Your task to perform on an android device: open app "DoorDash - Food Delivery" (install if not already installed) Image 0: 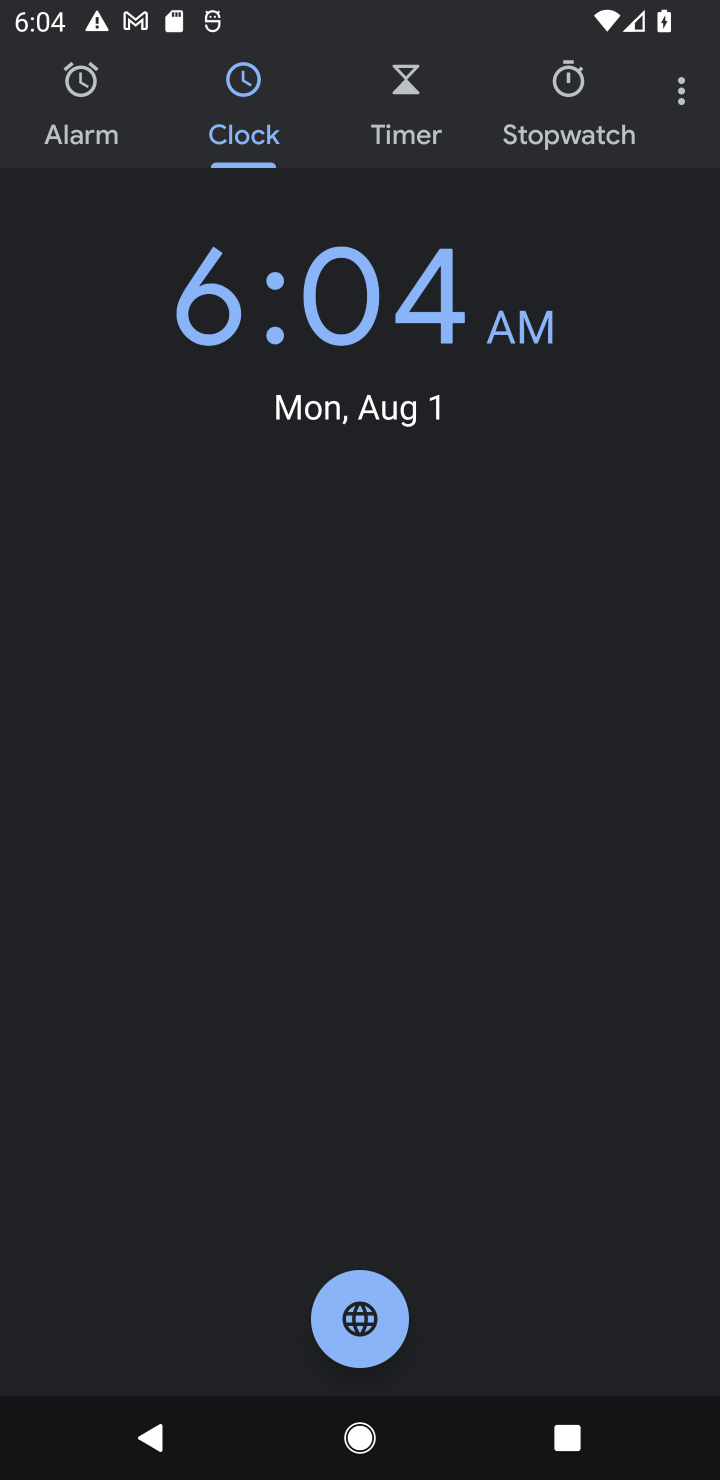
Step 0: press home button
Your task to perform on an android device: open app "DoorDash - Food Delivery" (install if not already installed) Image 1: 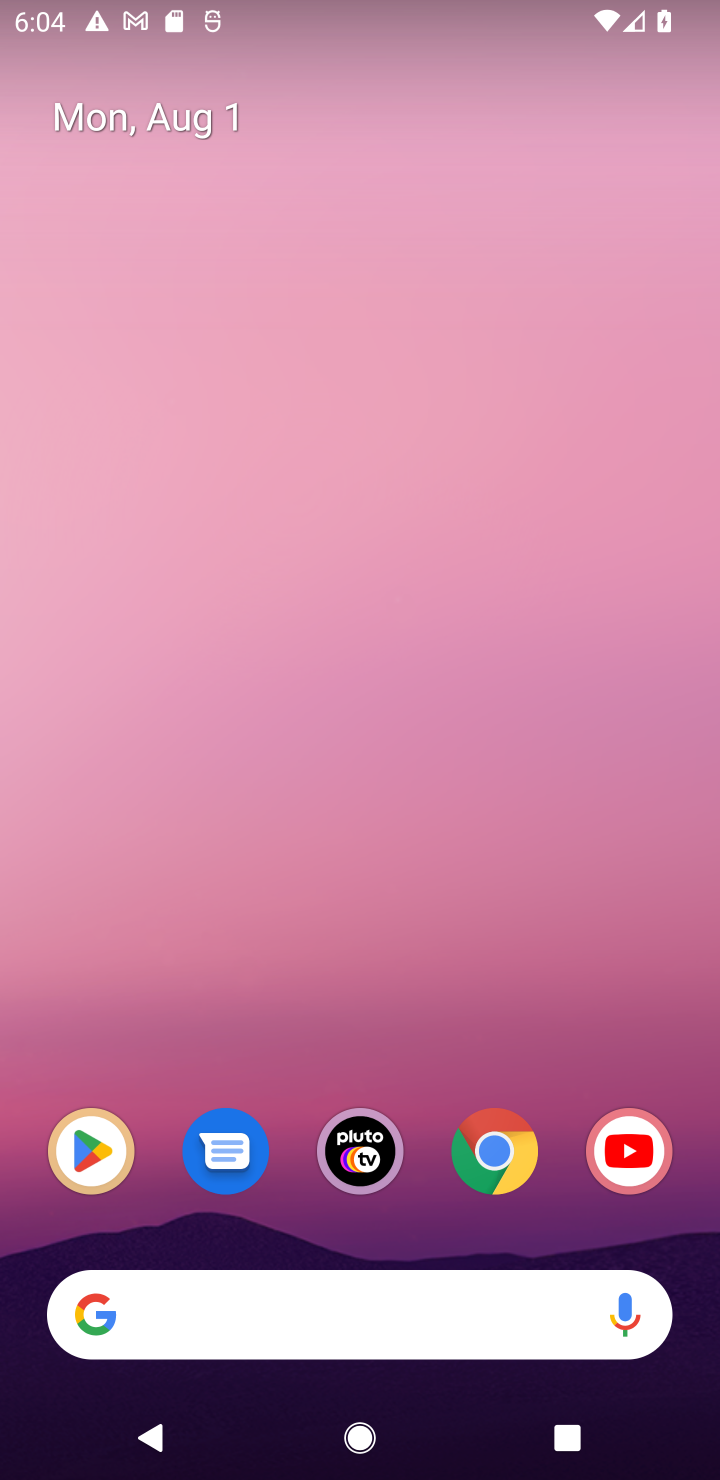
Step 1: drag from (400, 1294) to (550, 20)
Your task to perform on an android device: open app "DoorDash - Food Delivery" (install if not already installed) Image 2: 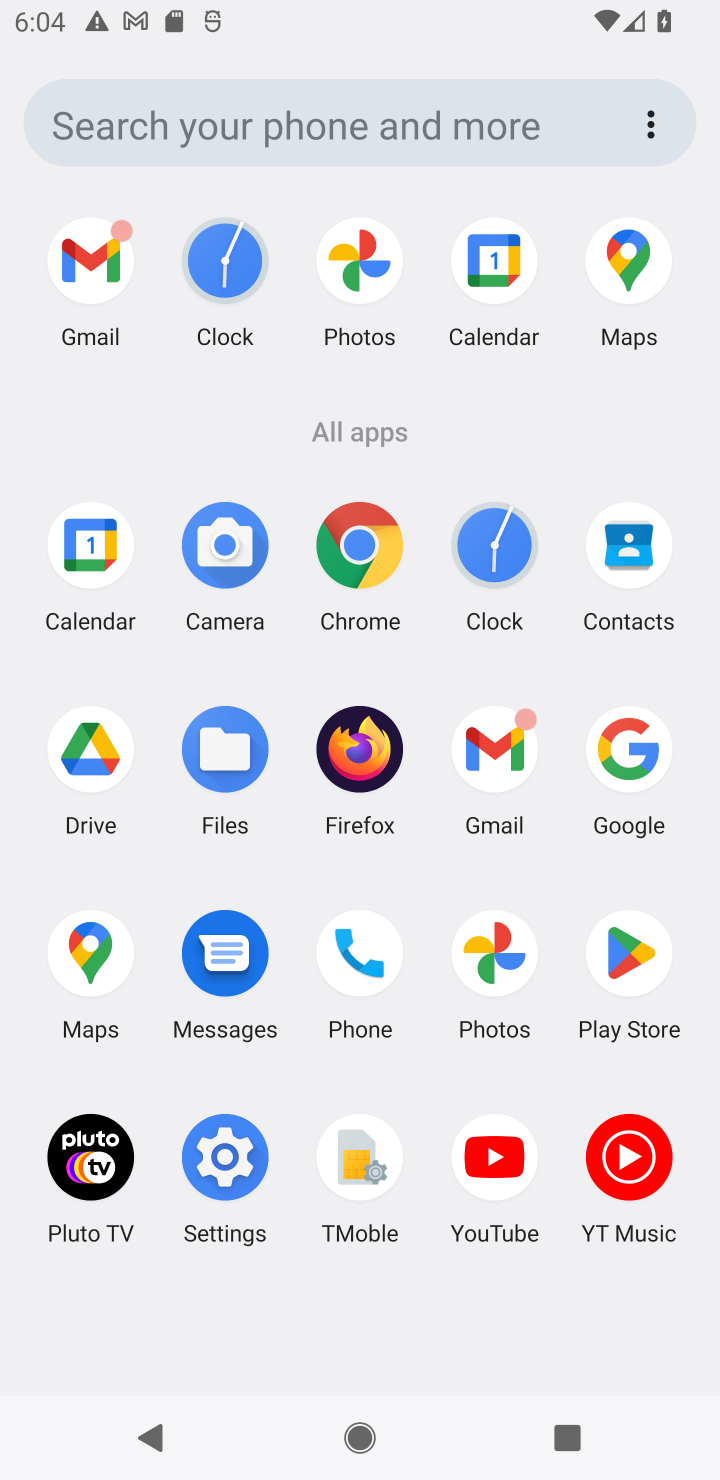
Step 2: click (631, 910)
Your task to perform on an android device: open app "DoorDash - Food Delivery" (install if not already installed) Image 3: 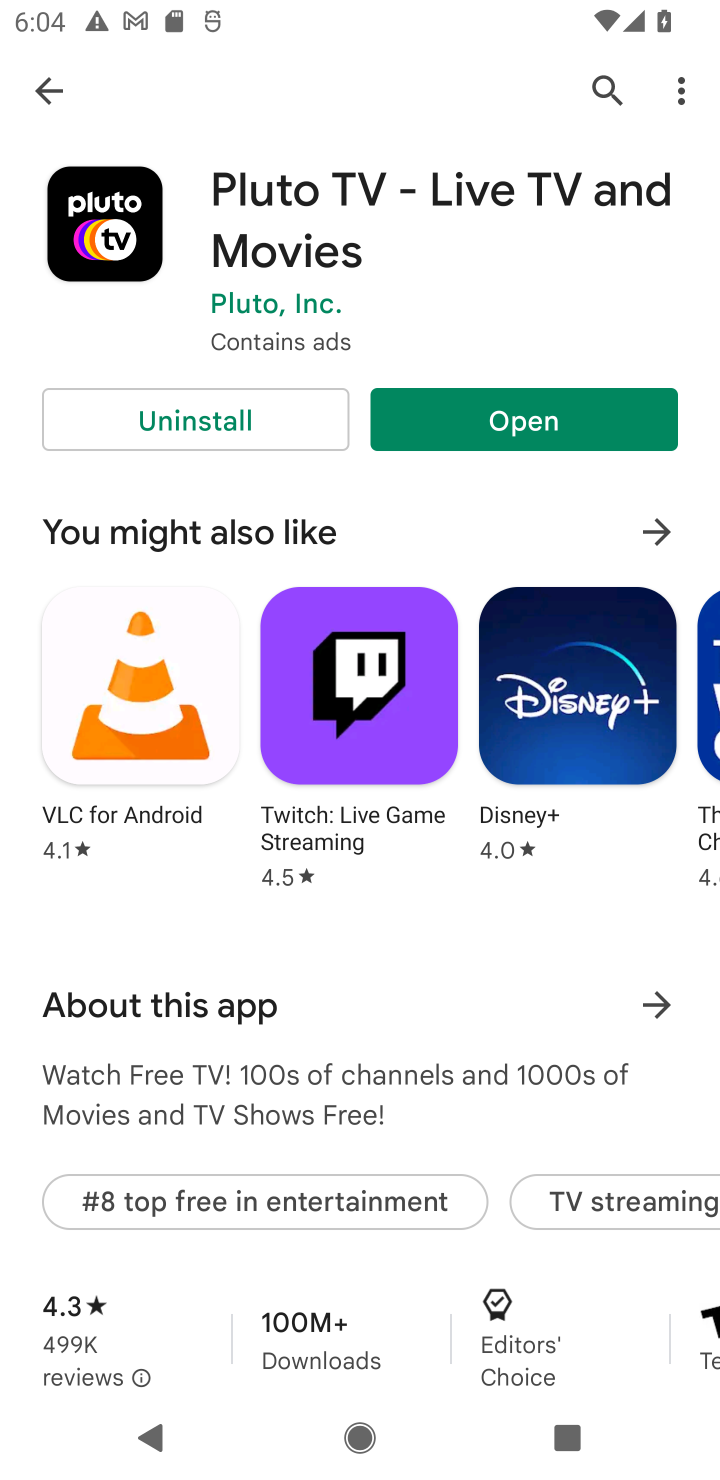
Step 3: click (606, 90)
Your task to perform on an android device: open app "DoorDash - Food Delivery" (install if not already installed) Image 4: 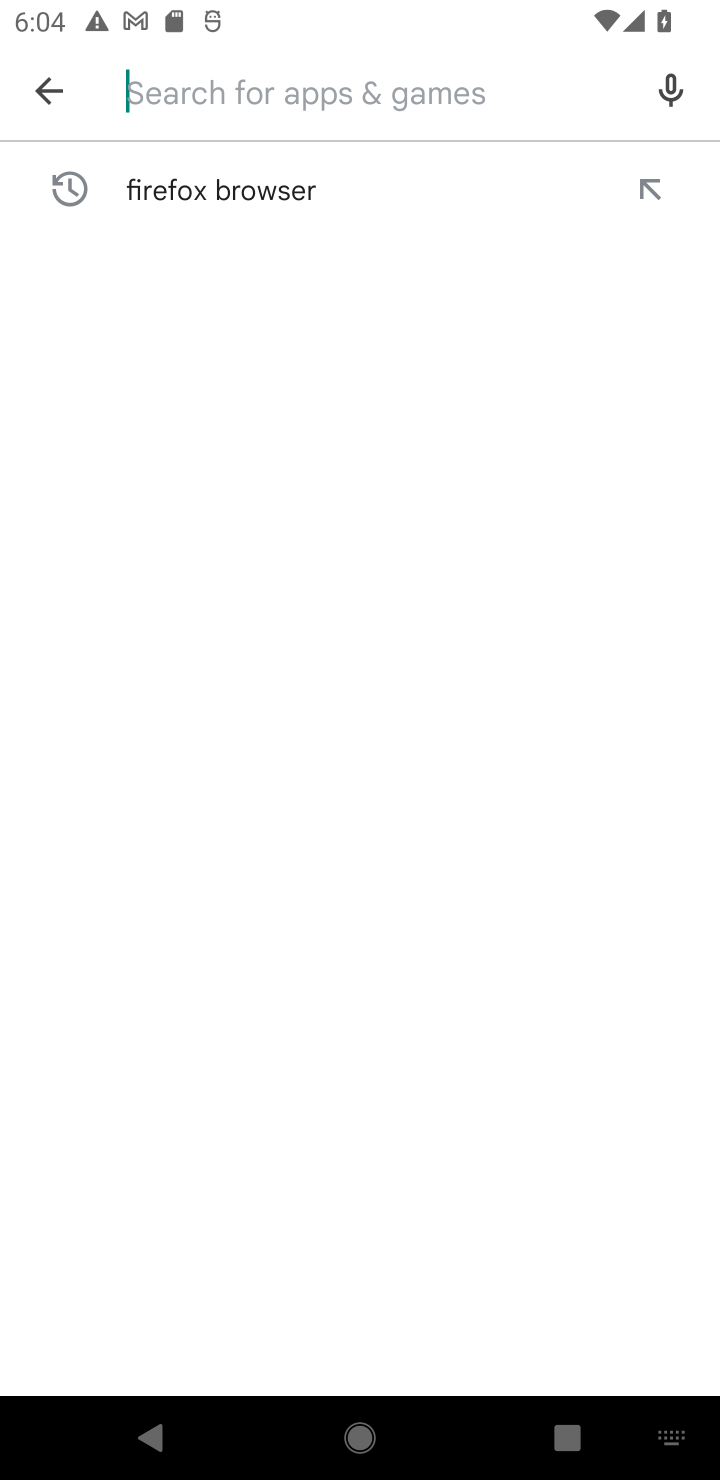
Step 4: type "doordash - food delivery"
Your task to perform on an android device: open app "DoorDash - Food Delivery" (install if not already installed) Image 5: 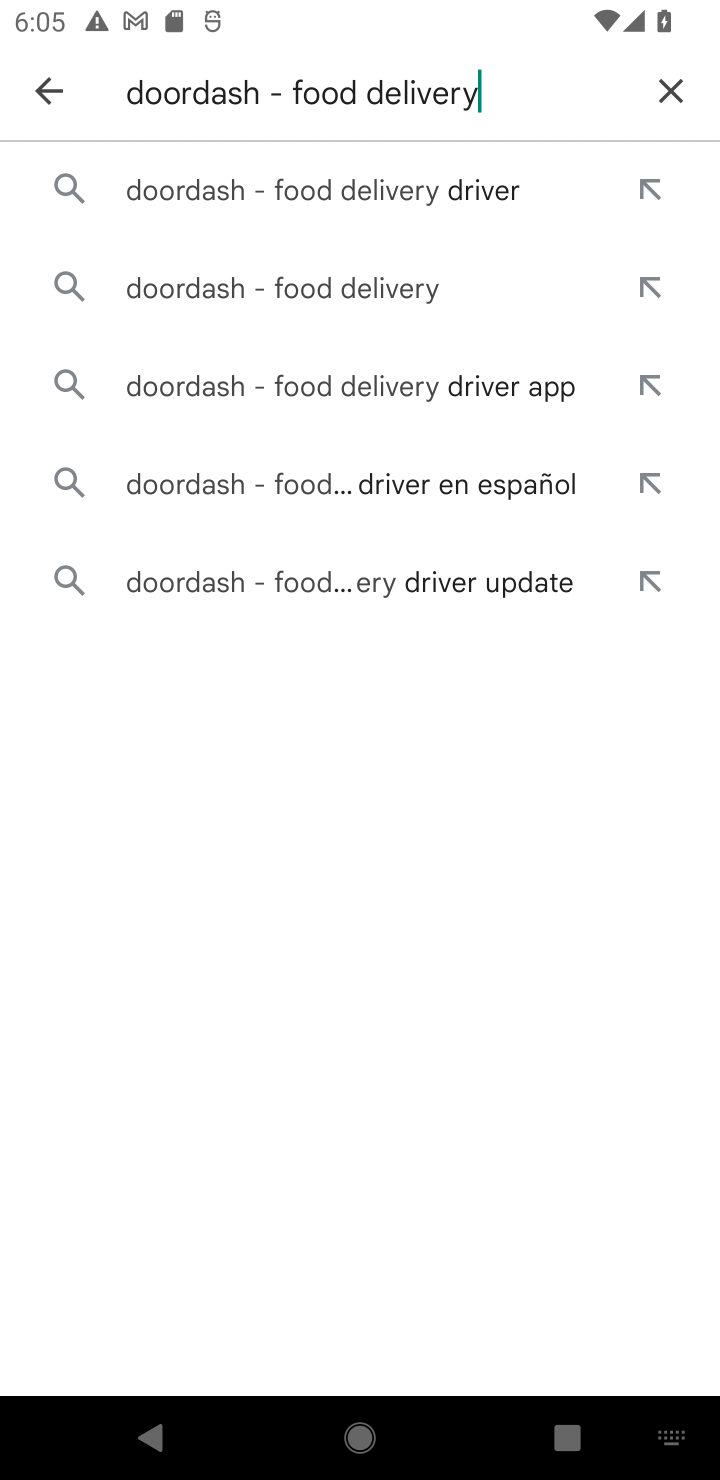
Step 5: click (433, 149)
Your task to perform on an android device: open app "DoorDash - Food Delivery" (install if not already installed) Image 6: 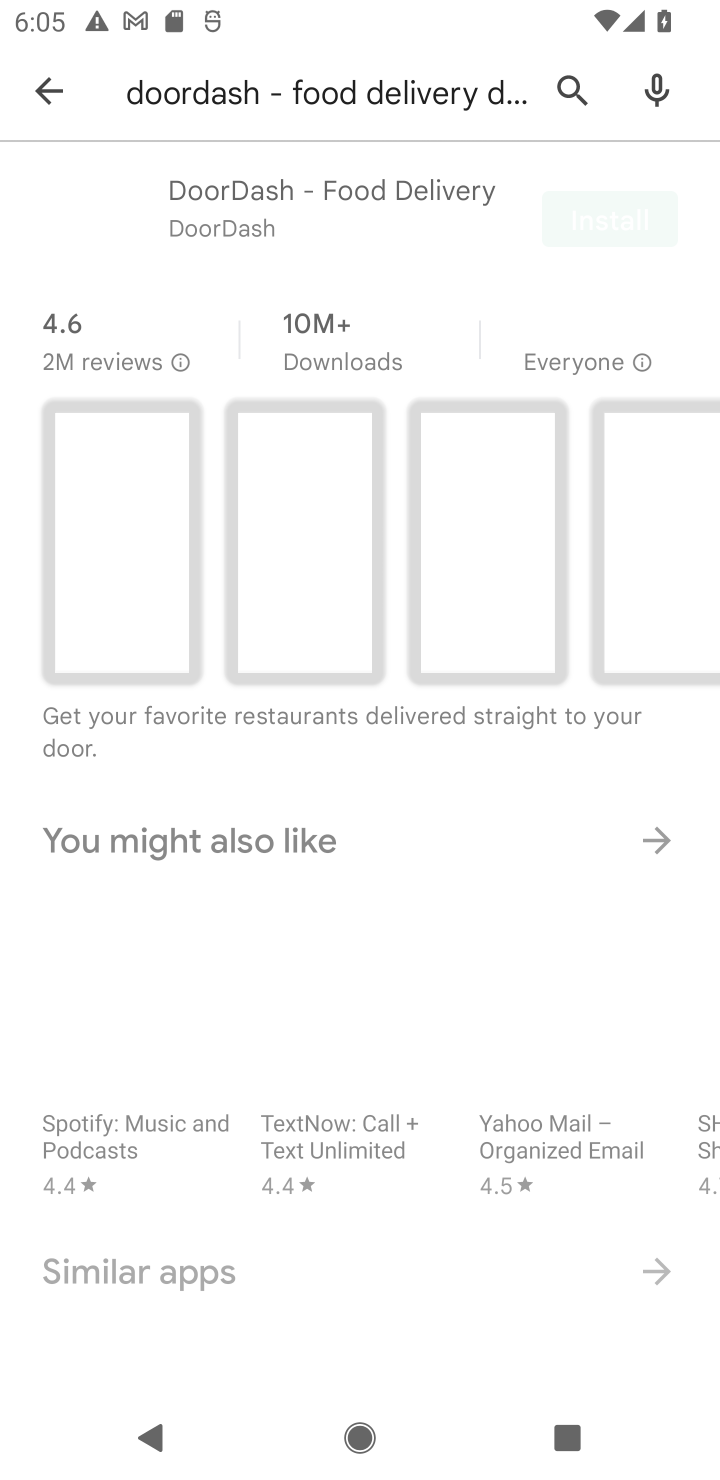
Step 6: click (395, 175)
Your task to perform on an android device: open app "DoorDash - Food Delivery" (install if not already installed) Image 7: 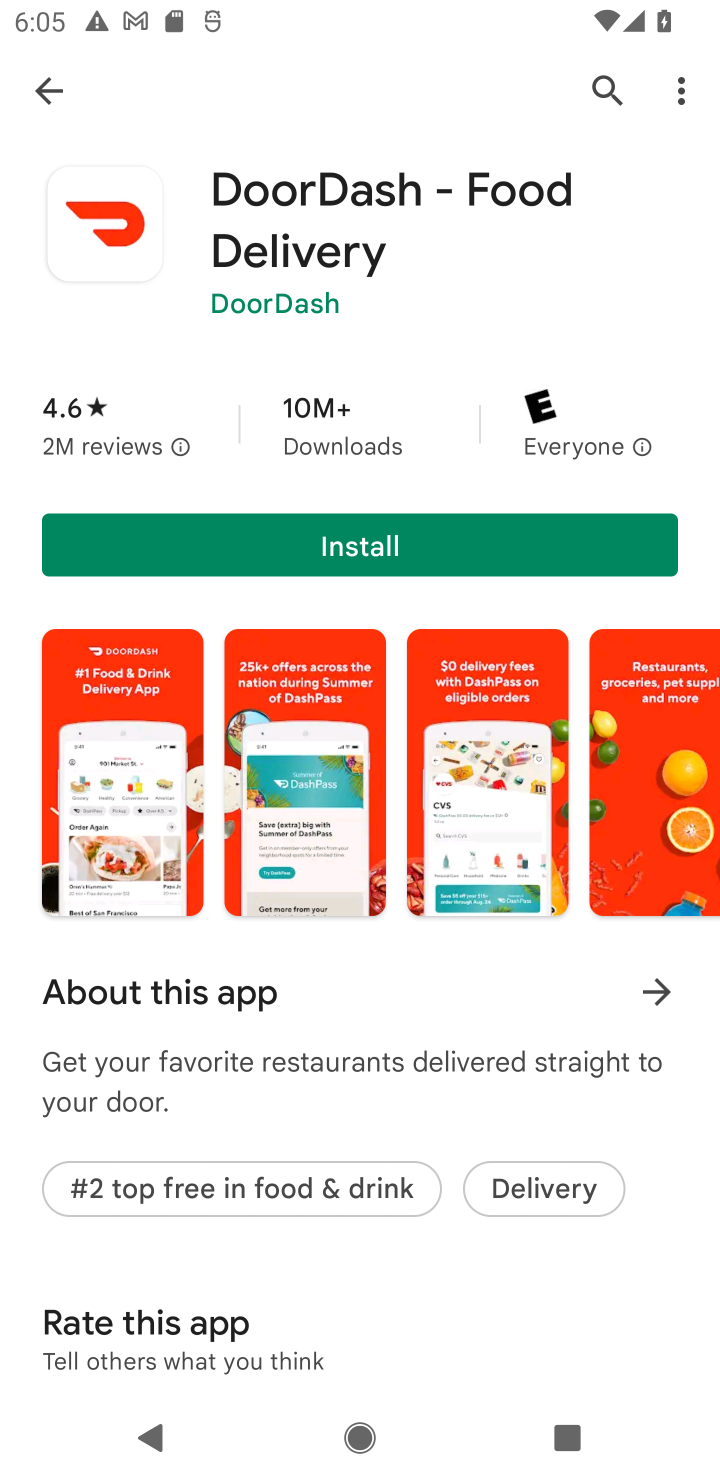
Step 7: click (469, 544)
Your task to perform on an android device: open app "DoorDash - Food Delivery" (install if not already installed) Image 8: 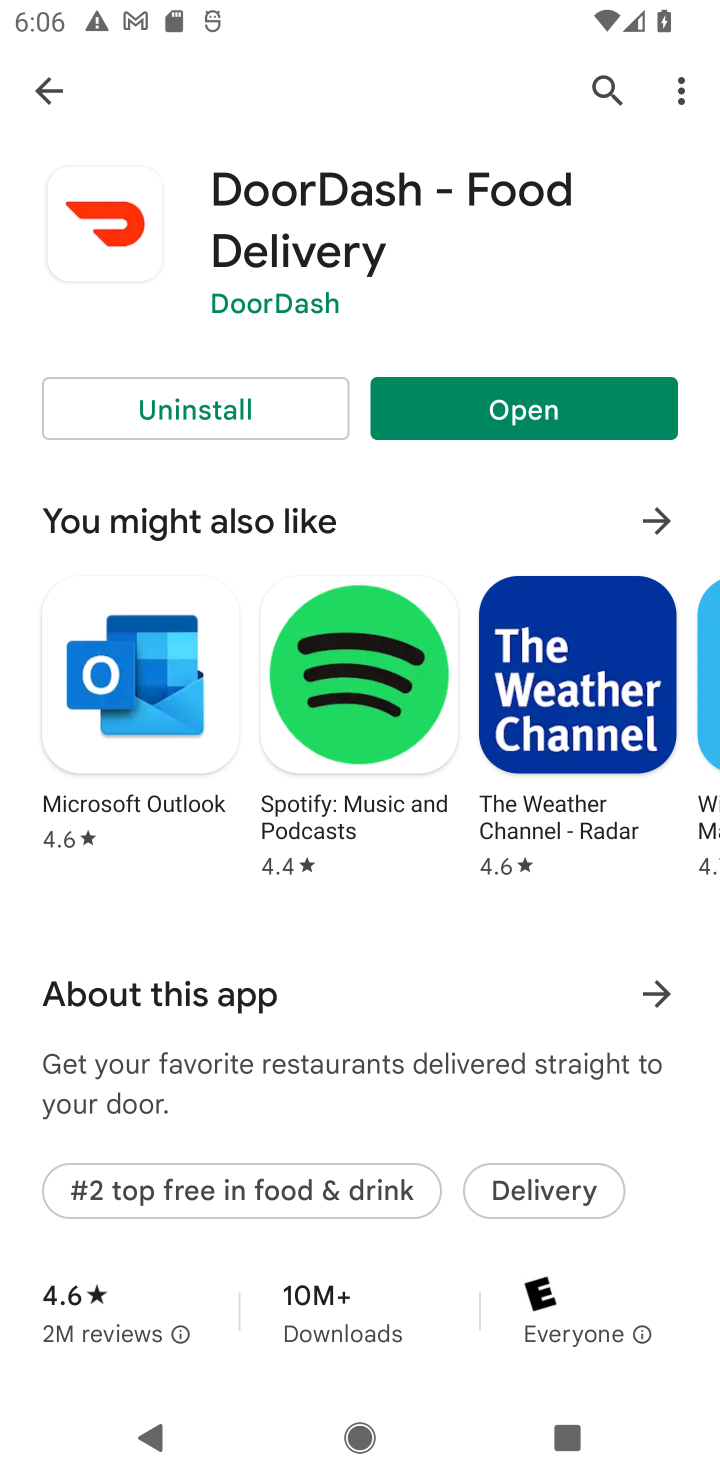
Step 8: task complete